Your task to perform on an android device: Open Google Maps and go to "Timeline" Image 0: 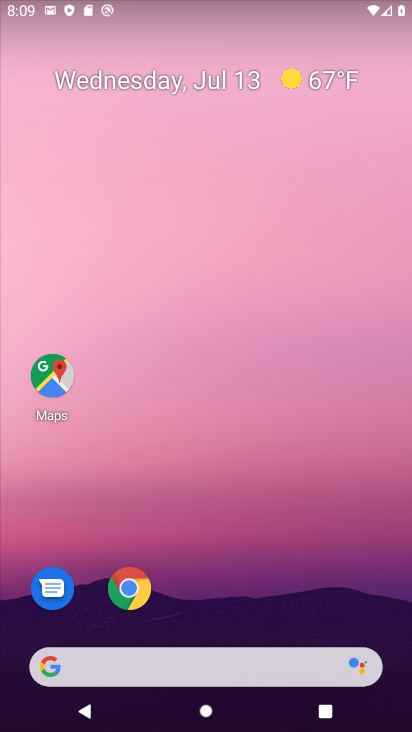
Step 0: click (40, 357)
Your task to perform on an android device: Open Google Maps and go to "Timeline" Image 1: 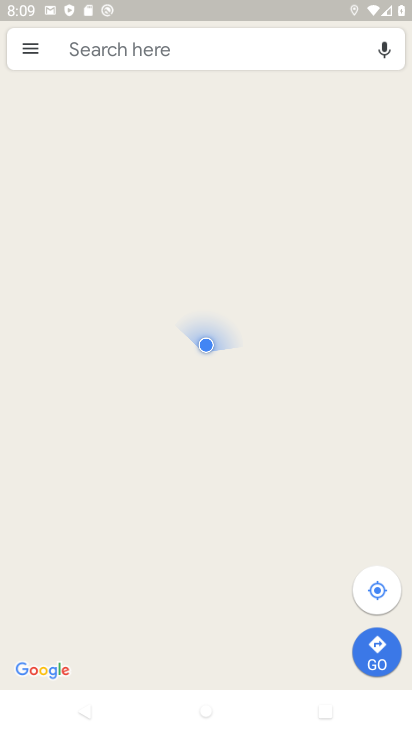
Step 1: click (12, 48)
Your task to perform on an android device: Open Google Maps and go to "Timeline" Image 2: 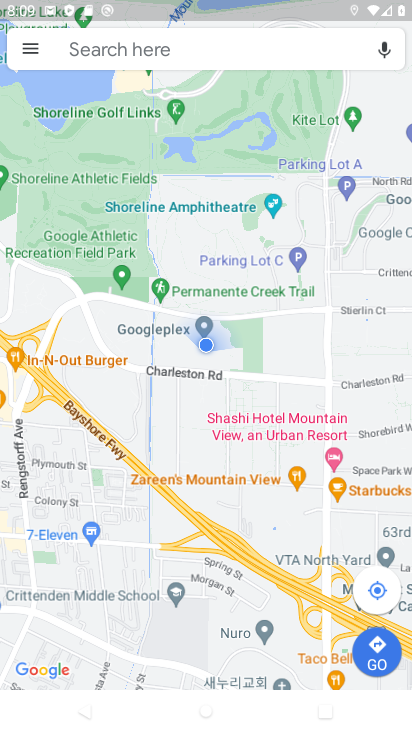
Step 2: click (31, 48)
Your task to perform on an android device: Open Google Maps and go to "Timeline" Image 3: 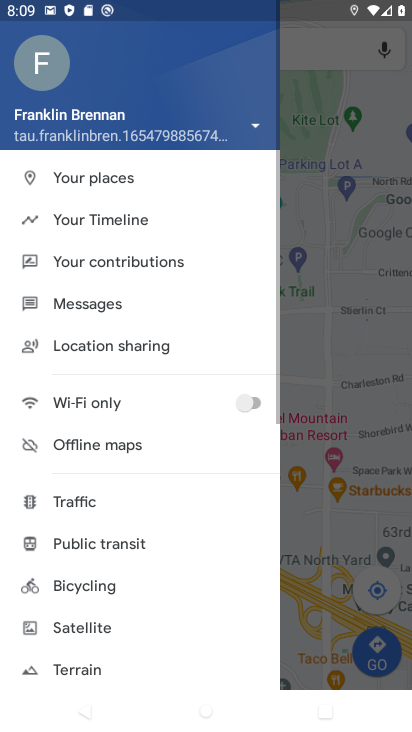
Step 3: click (84, 213)
Your task to perform on an android device: Open Google Maps and go to "Timeline" Image 4: 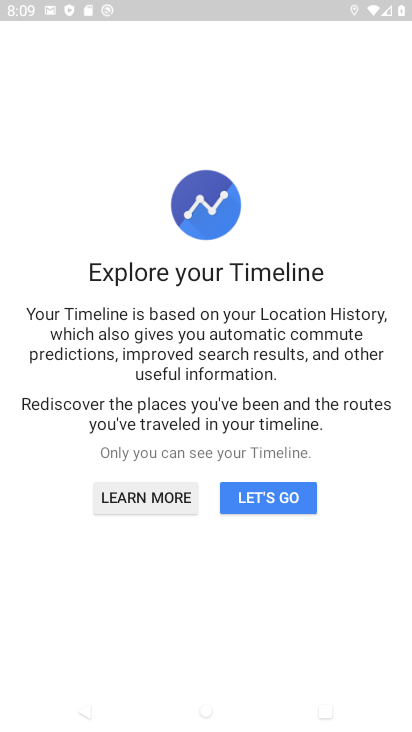
Step 4: task complete